Your task to perform on an android device: open the mobile data screen to see how much data has been used Image 0: 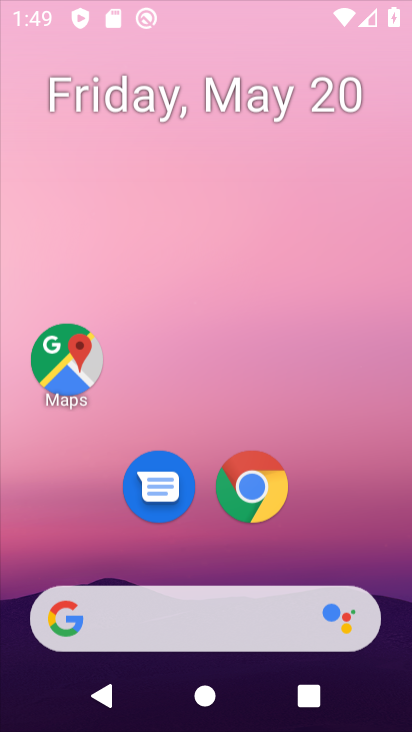
Step 0: click (235, 9)
Your task to perform on an android device: open the mobile data screen to see how much data has been used Image 1: 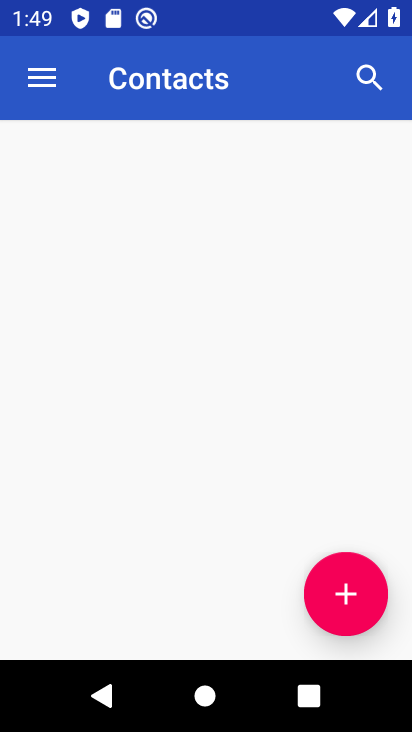
Step 1: drag from (245, 618) to (286, 24)
Your task to perform on an android device: open the mobile data screen to see how much data has been used Image 2: 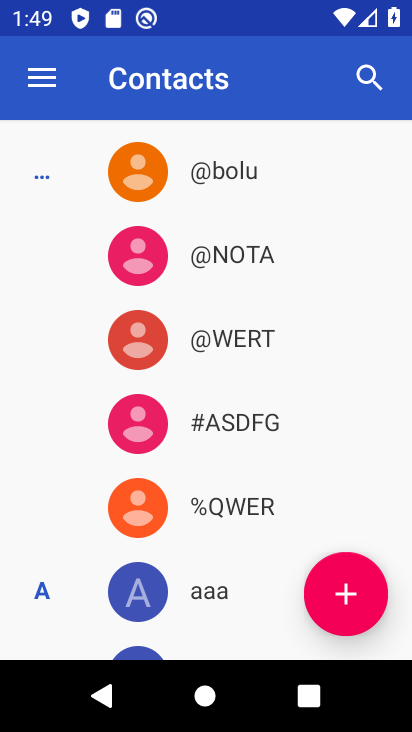
Step 2: press back button
Your task to perform on an android device: open the mobile data screen to see how much data has been used Image 3: 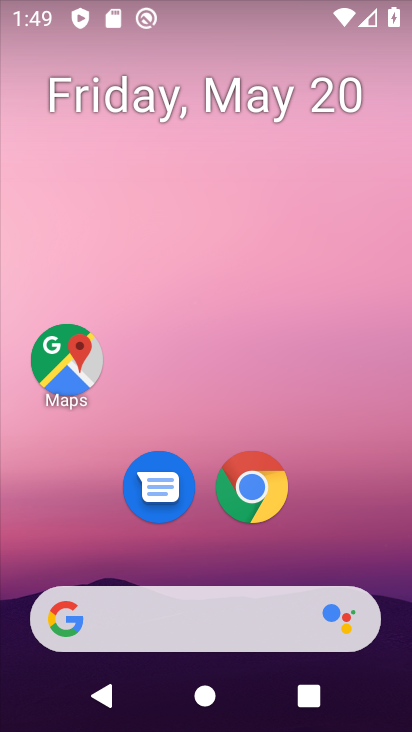
Step 3: drag from (269, 606) to (296, 4)
Your task to perform on an android device: open the mobile data screen to see how much data has been used Image 4: 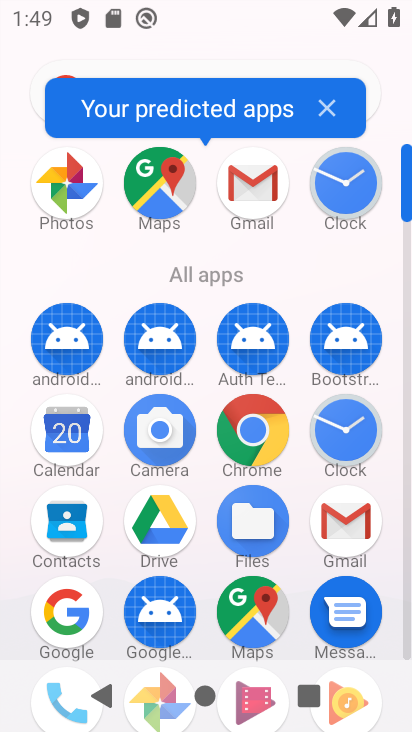
Step 4: drag from (223, 539) to (191, 28)
Your task to perform on an android device: open the mobile data screen to see how much data has been used Image 5: 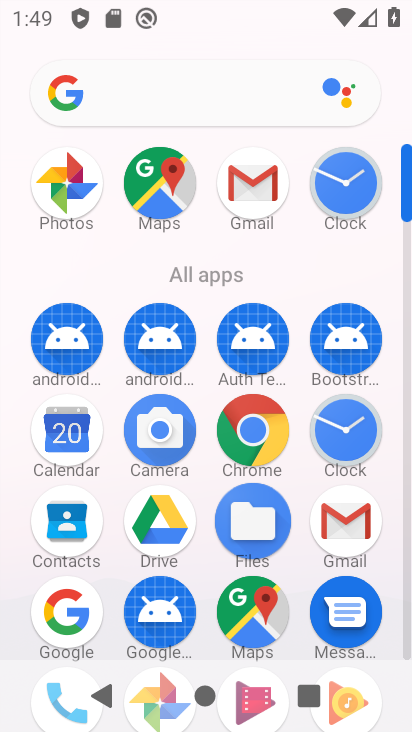
Step 5: drag from (246, 449) to (241, 128)
Your task to perform on an android device: open the mobile data screen to see how much data has been used Image 6: 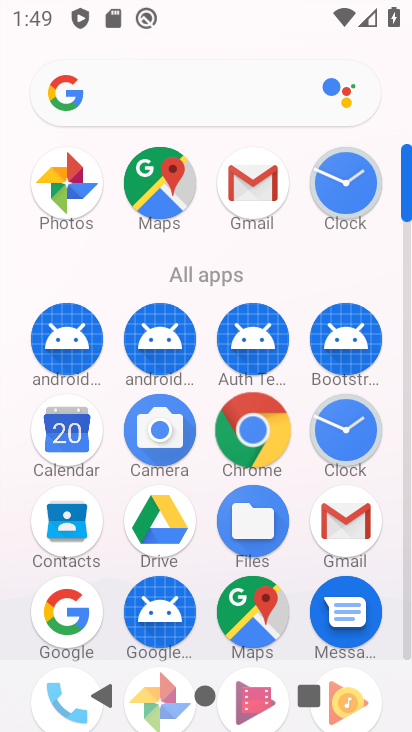
Step 6: drag from (324, 455) to (293, 179)
Your task to perform on an android device: open the mobile data screen to see how much data has been used Image 7: 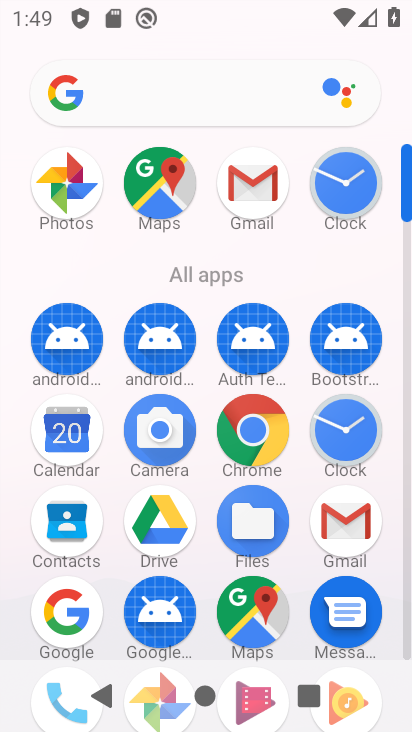
Step 7: drag from (222, 525) to (147, 1)
Your task to perform on an android device: open the mobile data screen to see how much data has been used Image 8: 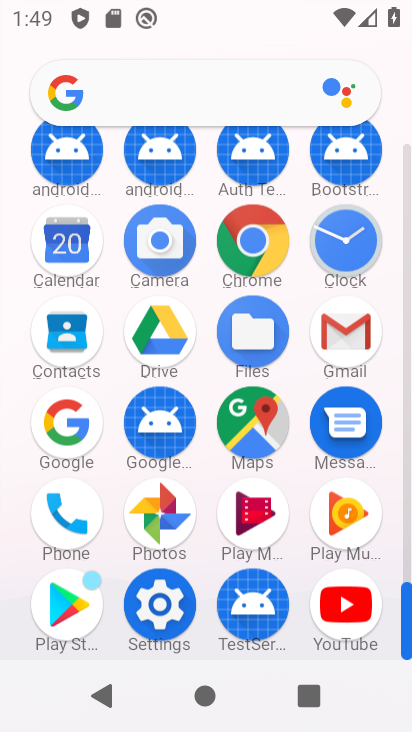
Step 8: drag from (164, 482) to (118, 14)
Your task to perform on an android device: open the mobile data screen to see how much data has been used Image 9: 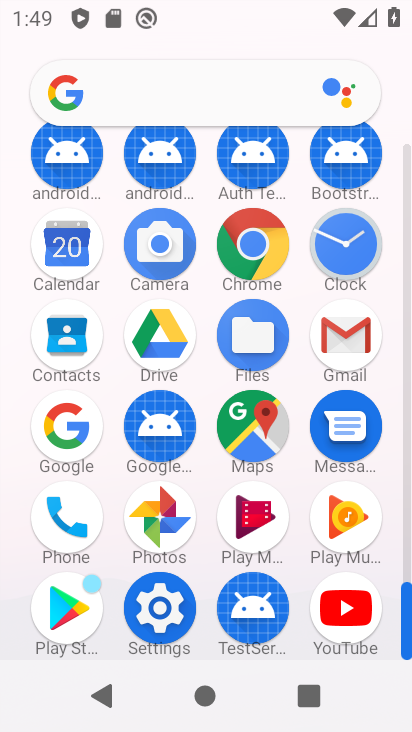
Step 9: click (175, 598)
Your task to perform on an android device: open the mobile data screen to see how much data has been used Image 10: 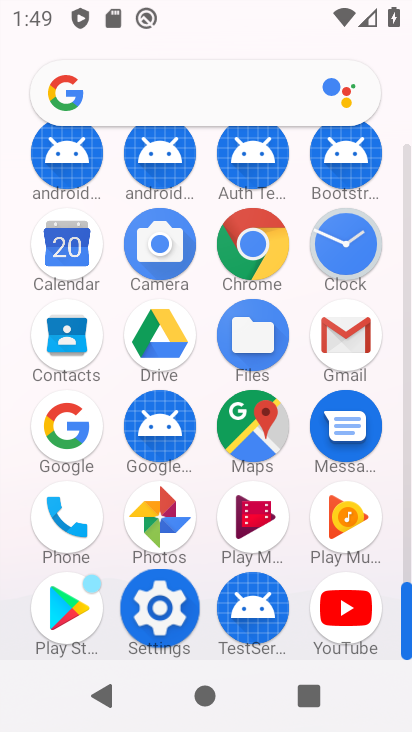
Step 10: click (174, 599)
Your task to perform on an android device: open the mobile data screen to see how much data has been used Image 11: 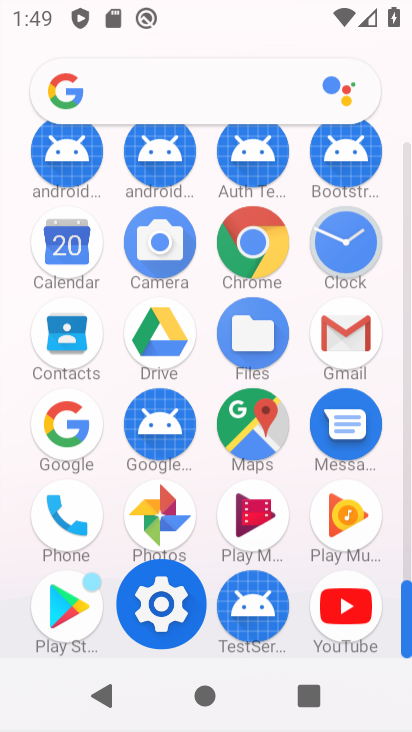
Step 11: click (174, 599)
Your task to perform on an android device: open the mobile data screen to see how much data has been used Image 12: 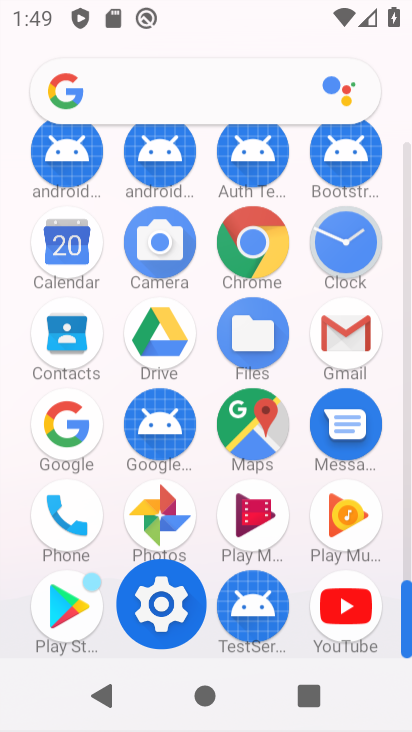
Step 12: click (174, 599)
Your task to perform on an android device: open the mobile data screen to see how much data has been used Image 13: 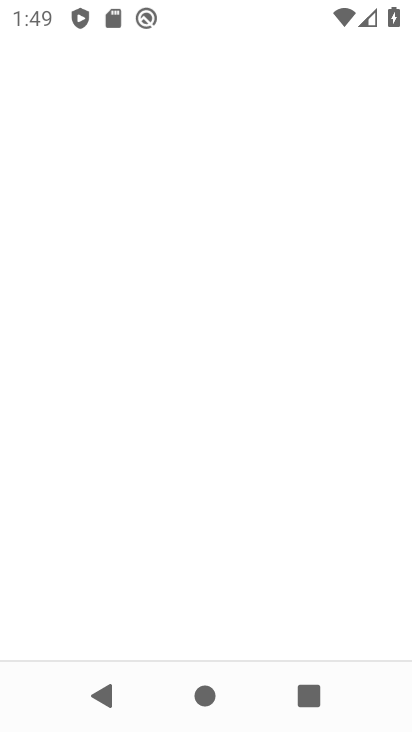
Step 13: click (174, 599)
Your task to perform on an android device: open the mobile data screen to see how much data has been used Image 14: 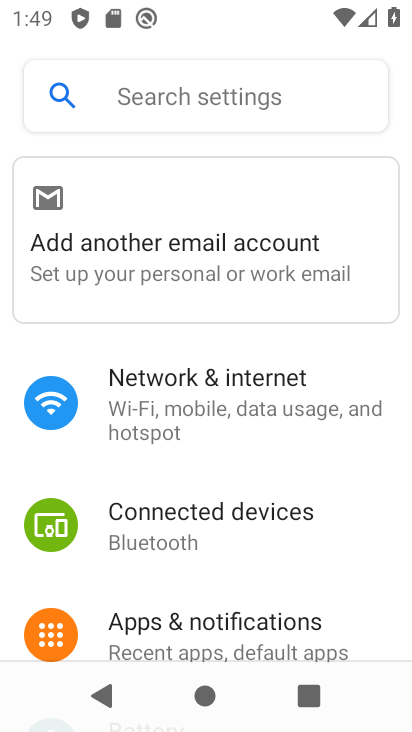
Step 14: drag from (215, 515) to (208, 200)
Your task to perform on an android device: open the mobile data screen to see how much data has been used Image 15: 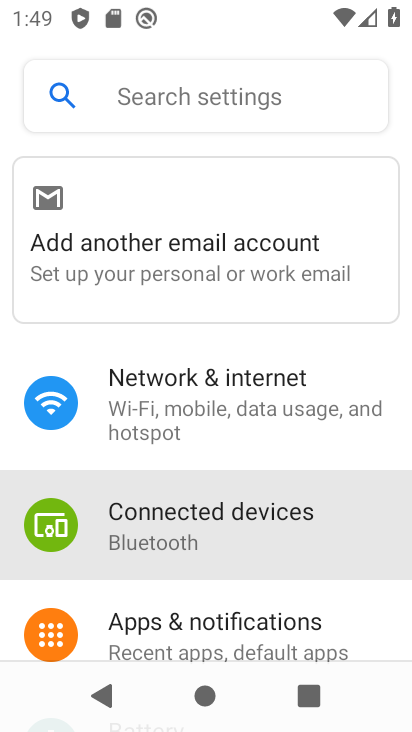
Step 15: drag from (275, 418) to (197, 125)
Your task to perform on an android device: open the mobile data screen to see how much data has been used Image 16: 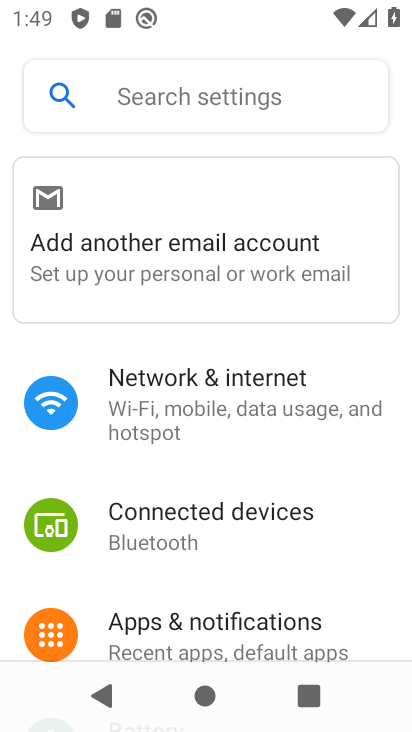
Step 16: drag from (218, 574) to (215, 42)
Your task to perform on an android device: open the mobile data screen to see how much data has been used Image 17: 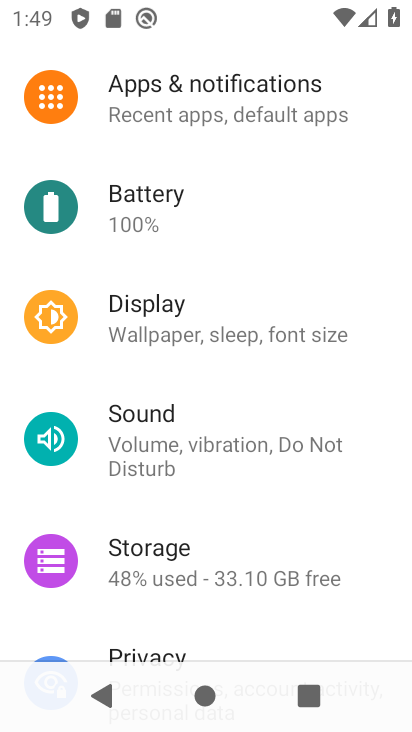
Step 17: drag from (183, 505) to (138, 1)
Your task to perform on an android device: open the mobile data screen to see how much data has been used Image 18: 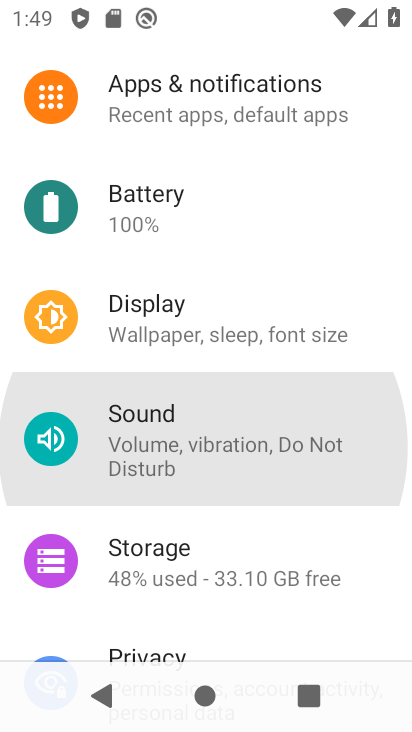
Step 18: drag from (188, 588) to (231, 0)
Your task to perform on an android device: open the mobile data screen to see how much data has been used Image 19: 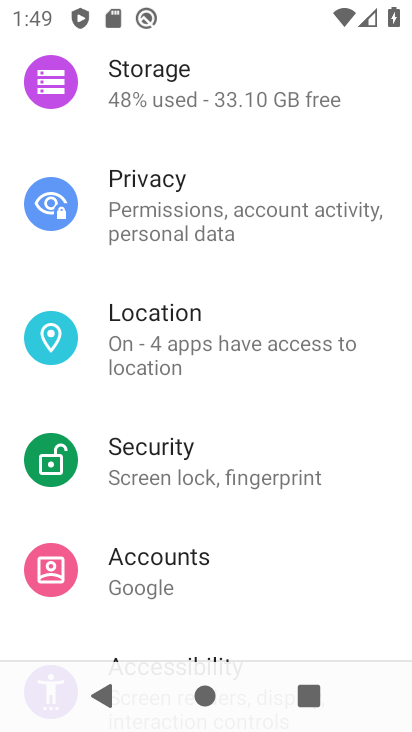
Step 19: drag from (220, 476) to (220, 108)
Your task to perform on an android device: open the mobile data screen to see how much data has been used Image 20: 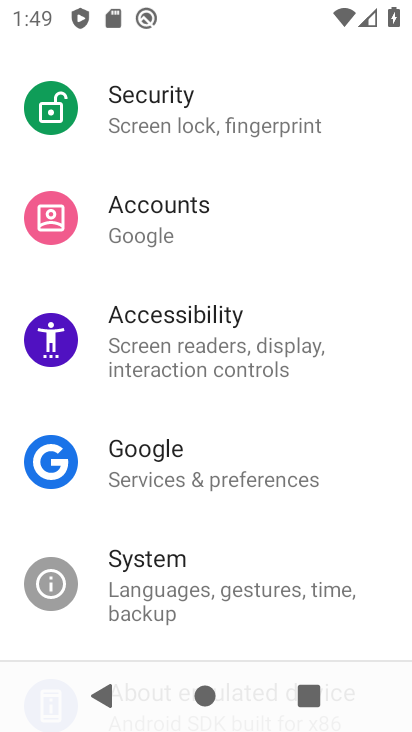
Step 20: drag from (281, 482) to (312, 0)
Your task to perform on an android device: open the mobile data screen to see how much data has been used Image 21: 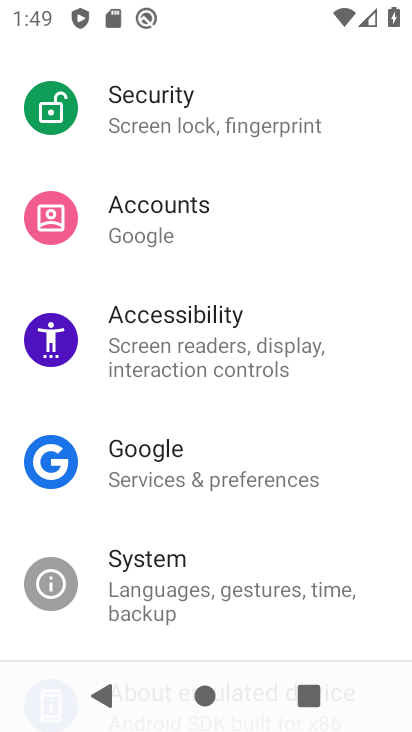
Step 21: click (207, 703)
Your task to perform on an android device: open the mobile data screen to see how much data has been used Image 22: 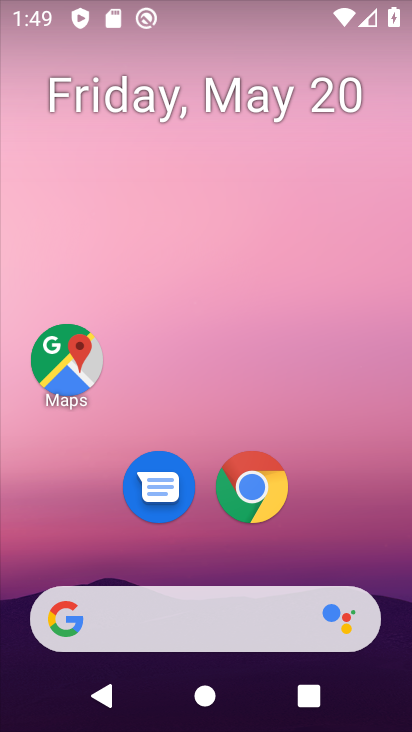
Step 22: drag from (264, 655) to (207, 15)
Your task to perform on an android device: open the mobile data screen to see how much data has been used Image 23: 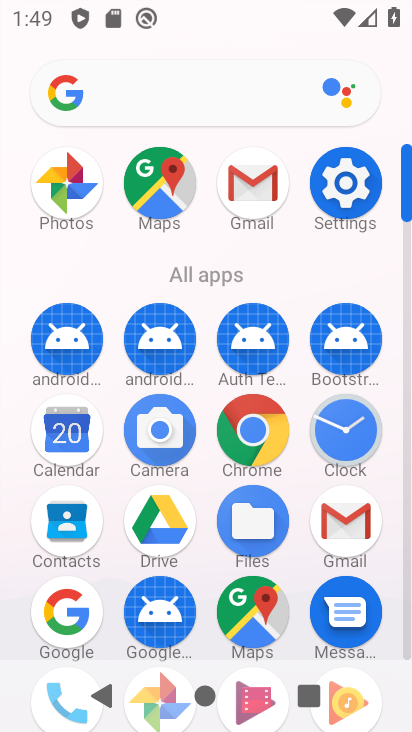
Step 23: click (348, 180)
Your task to perform on an android device: open the mobile data screen to see how much data has been used Image 24: 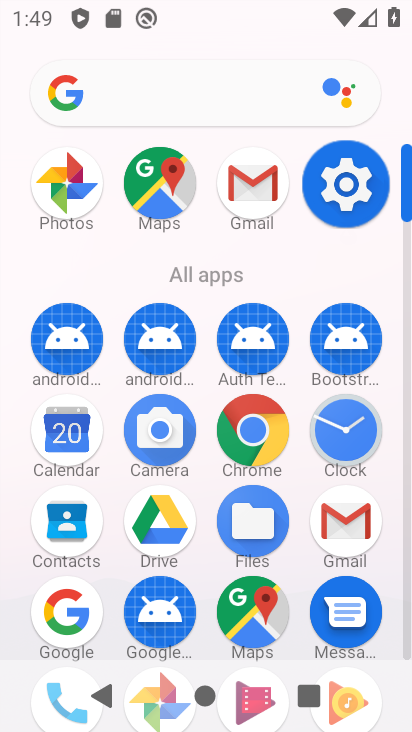
Step 24: click (349, 179)
Your task to perform on an android device: open the mobile data screen to see how much data has been used Image 25: 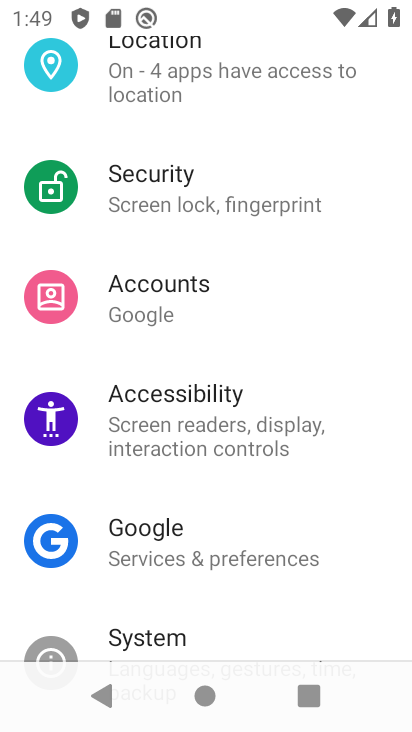
Step 25: drag from (203, 100) to (172, 412)
Your task to perform on an android device: open the mobile data screen to see how much data has been used Image 26: 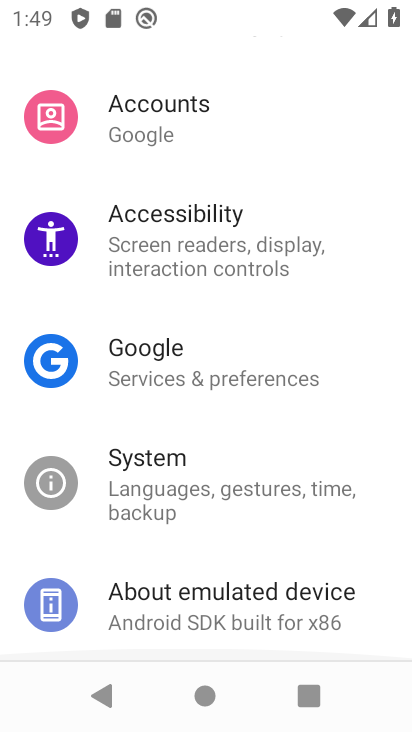
Step 26: drag from (149, 192) to (234, 520)
Your task to perform on an android device: open the mobile data screen to see how much data has been used Image 27: 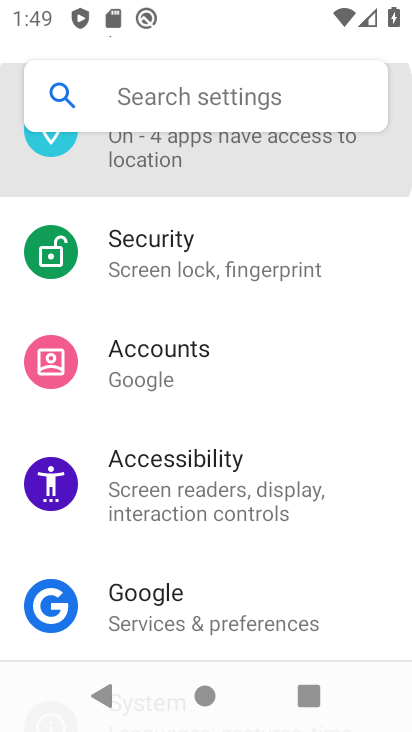
Step 27: drag from (231, 215) to (231, 625)
Your task to perform on an android device: open the mobile data screen to see how much data has been used Image 28: 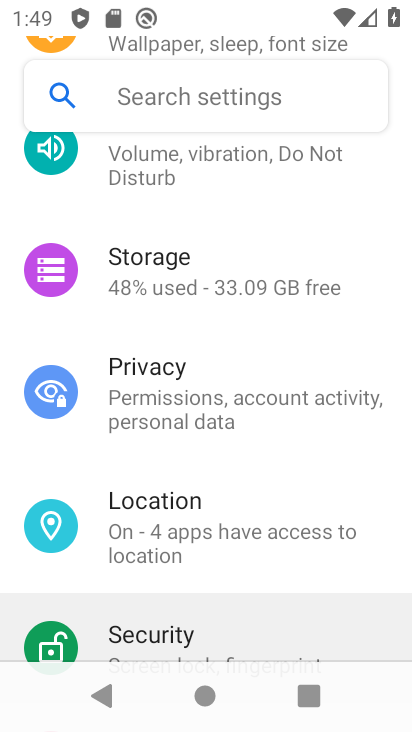
Step 28: drag from (205, 207) to (236, 520)
Your task to perform on an android device: open the mobile data screen to see how much data has been used Image 29: 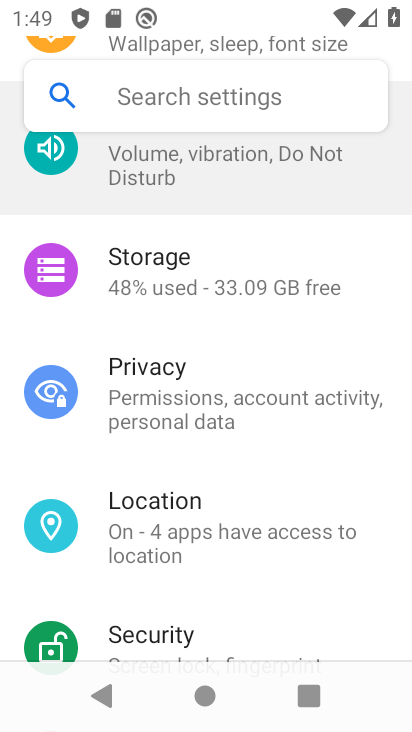
Step 29: drag from (238, 252) to (185, 612)
Your task to perform on an android device: open the mobile data screen to see how much data has been used Image 30: 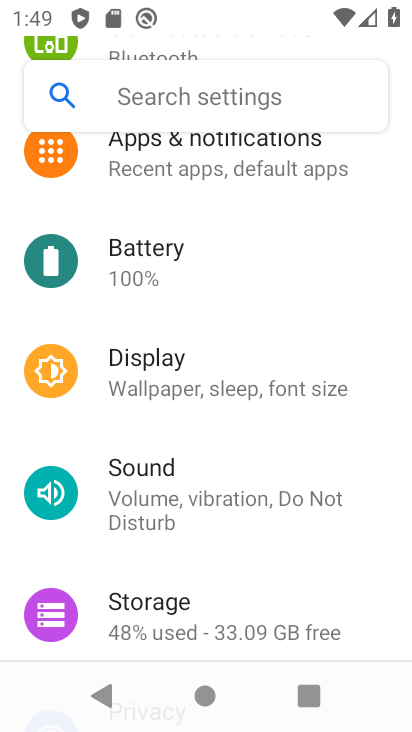
Step 30: drag from (201, 236) to (156, 613)
Your task to perform on an android device: open the mobile data screen to see how much data has been used Image 31: 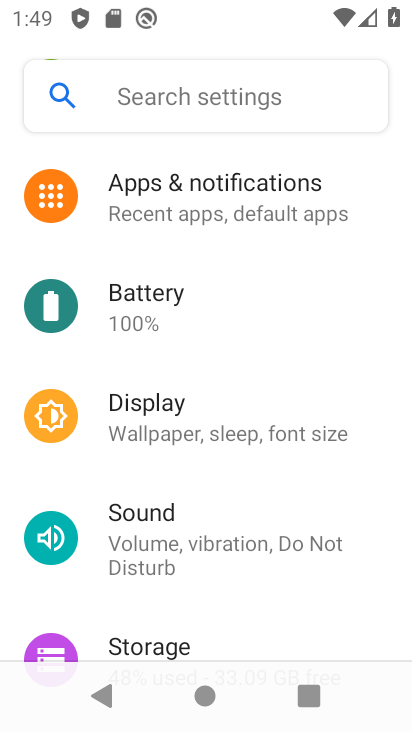
Step 31: drag from (187, 160) to (198, 508)
Your task to perform on an android device: open the mobile data screen to see how much data has been used Image 32: 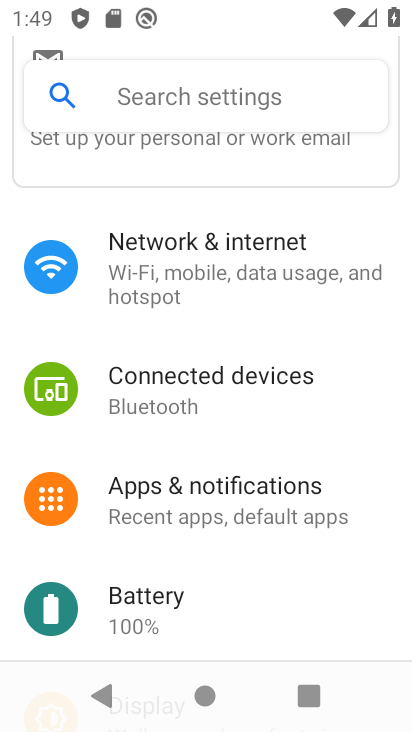
Step 32: click (205, 256)
Your task to perform on an android device: open the mobile data screen to see how much data has been used Image 33: 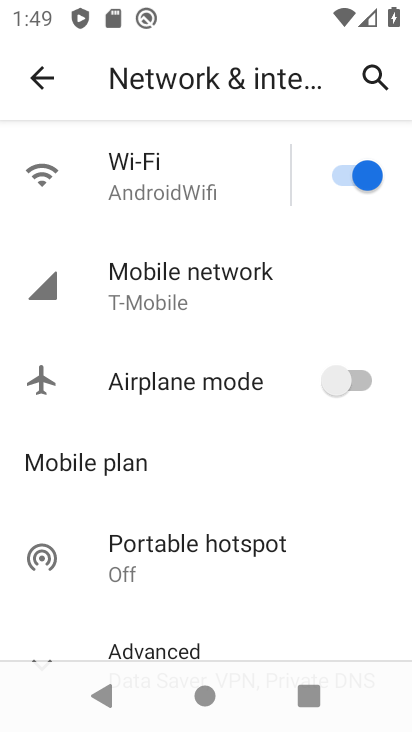
Step 33: task complete